Your task to perform on an android device: check storage Image 0: 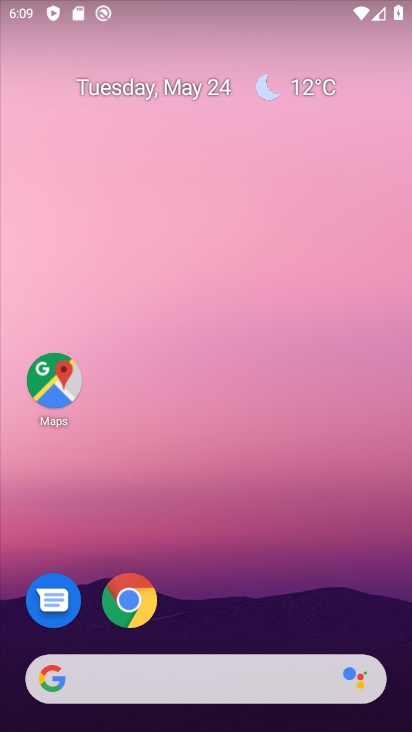
Step 0: drag from (217, 682) to (302, 110)
Your task to perform on an android device: check storage Image 1: 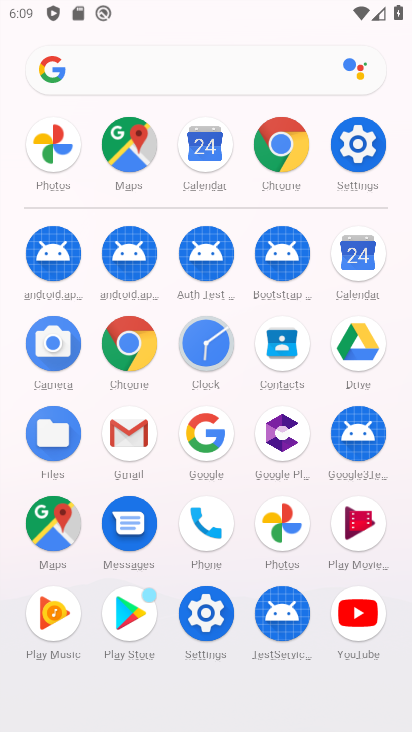
Step 1: click (364, 136)
Your task to perform on an android device: check storage Image 2: 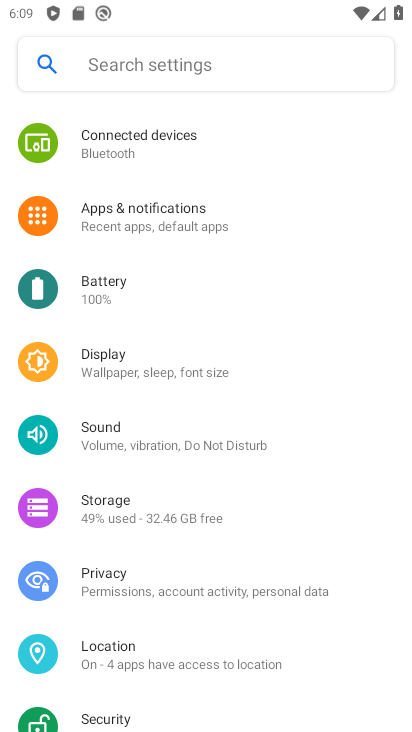
Step 2: click (152, 506)
Your task to perform on an android device: check storage Image 3: 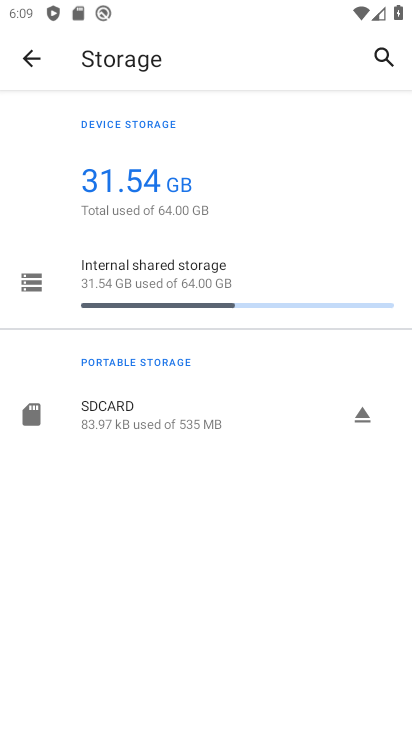
Step 3: task complete